Your task to perform on an android device: What's the weather today? Image 0: 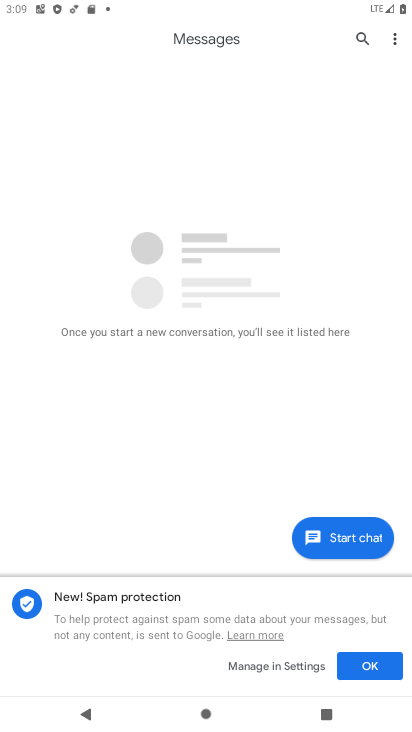
Step 0: press home button
Your task to perform on an android device: What's the weather today? Image 1: 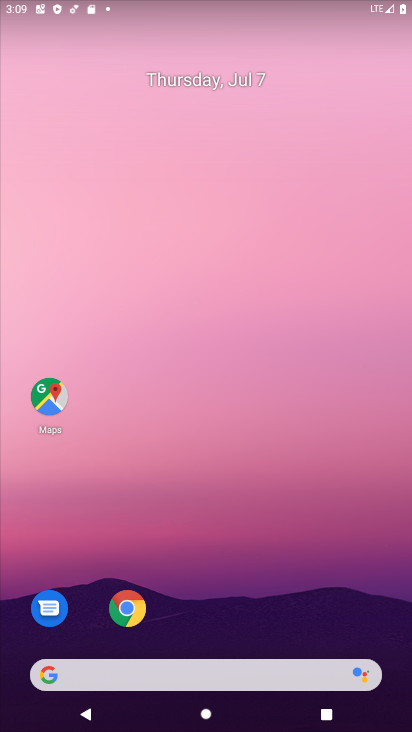
Step 1: drag from (206, 645) to (223, 77)
Your task to perform on an android device: What's the weather today? Image 2: 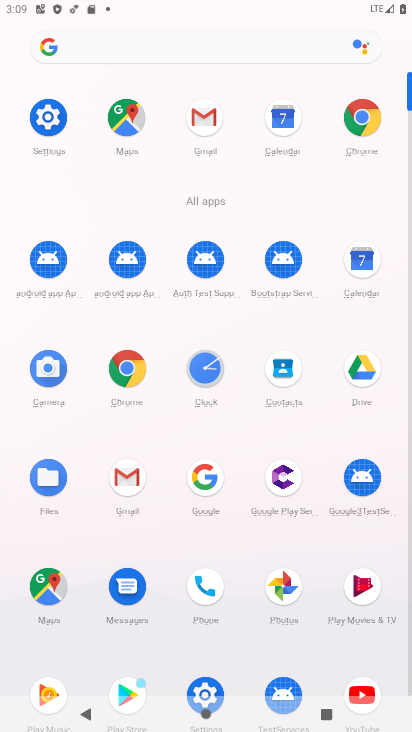
Step 2: click (364, 133)
Your task to perform on an android device: What's the weather today? Image 3: 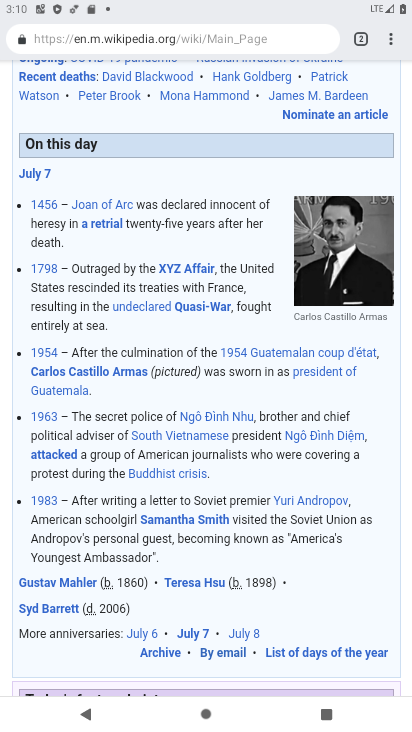
Step 3: drag from (192, 200) to (173, 730)
Your task to perform on an android device: What's the weather today? Image 4: 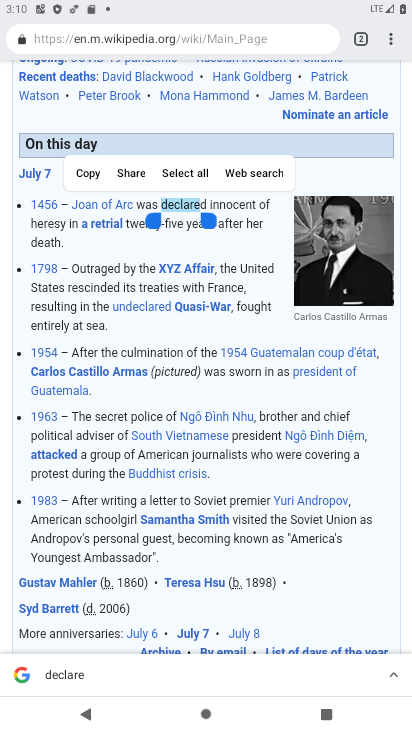
Step 4: drag from (167, 287) to (182, 697)
Your task to perform on an android device: What's the weather today? Image 5: 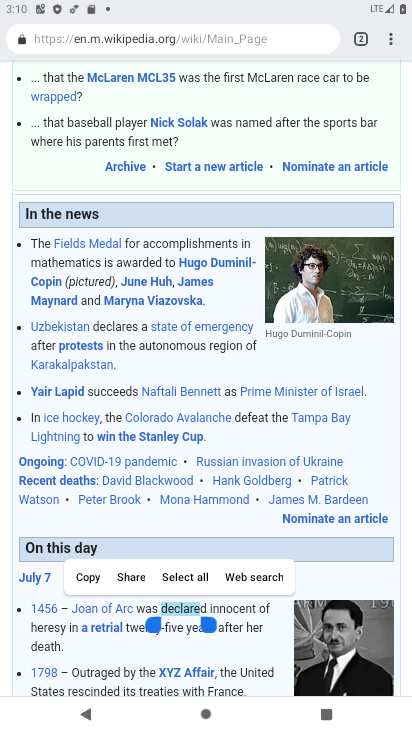
Step 5: drag from (111, 158) to (151, 634)
Your task to perform on an android device: What's the weather today? Image 6: 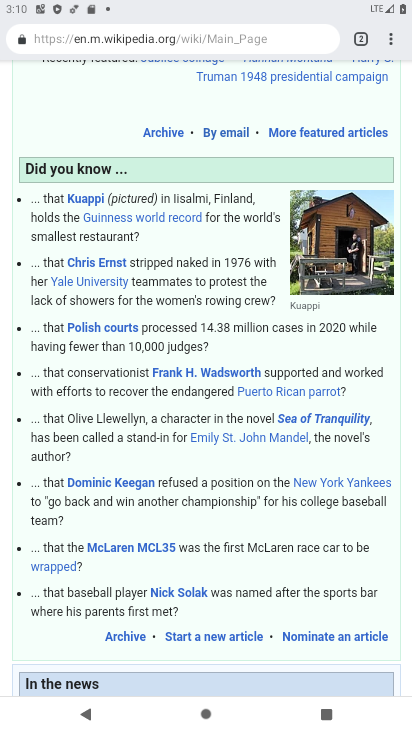
Step 6: press back button
Your task to perform on an android device: What's the weather today? Image 7: 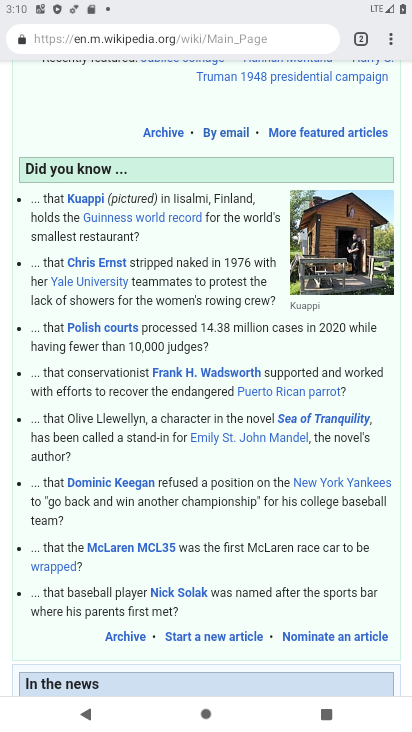
Step 7: press back button
Your task to perform on an android device: What's the weather today? Image 8: 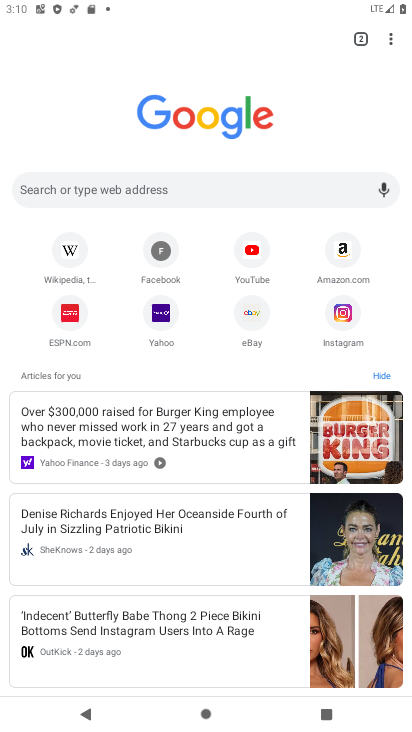
Step 8: click (84, 194)
Your task to perform on an android device: What's the weather today? Image 9: 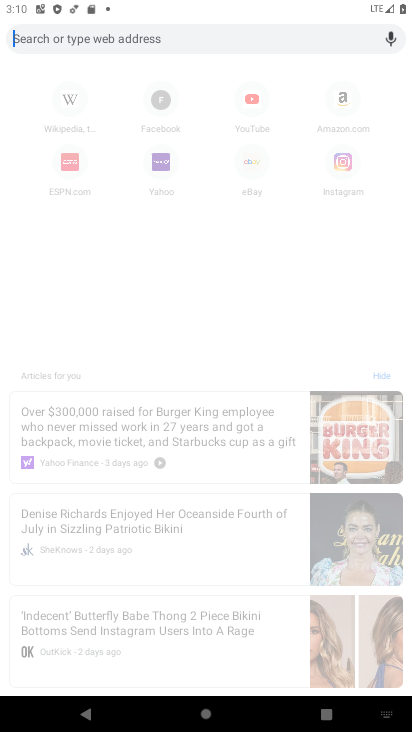
Step 9: type "weather"
Your task to perform on an android device: What's the weather today? Image 10: 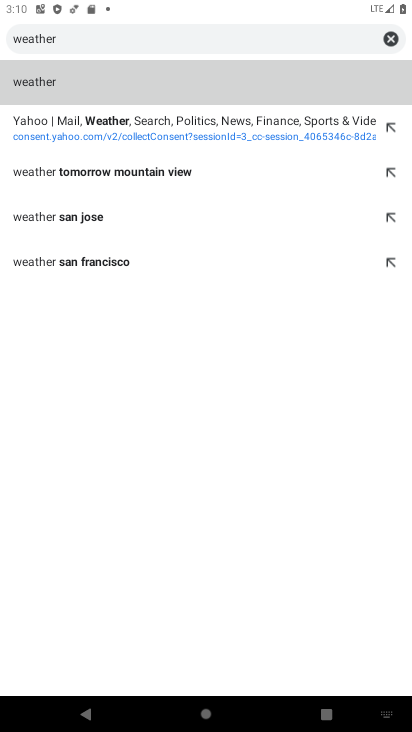
Step 10: click (85, 82)
Your task to perform on an android device: What's the weather today? Image 11: 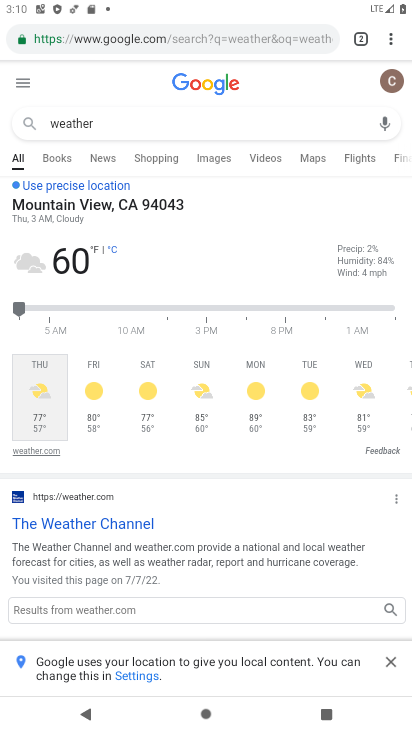
Step 11: task complete